Your task to perform on an android device: What's on my calendar today? Image 0: 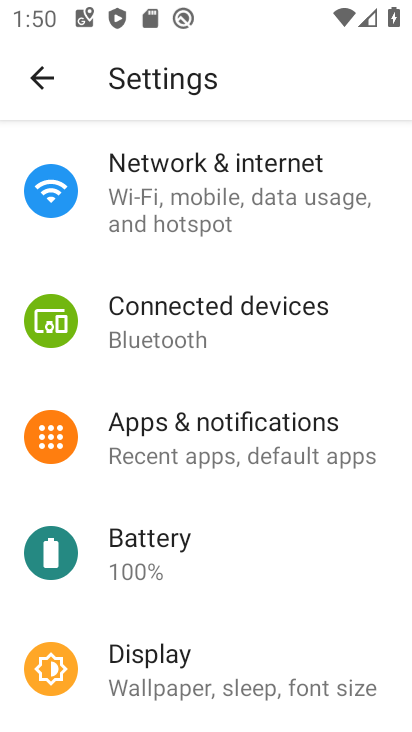
Step 0: press home button
Your task to perform on an android device: What's on my calendar today? Image 1: 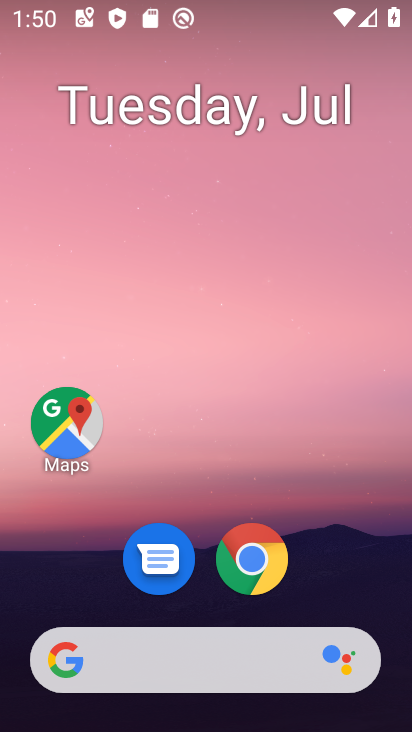
Step 1: drag from (348, 563) to (344, 238)
Your task to perform on an android device: What's on my calendar today? Image 2: 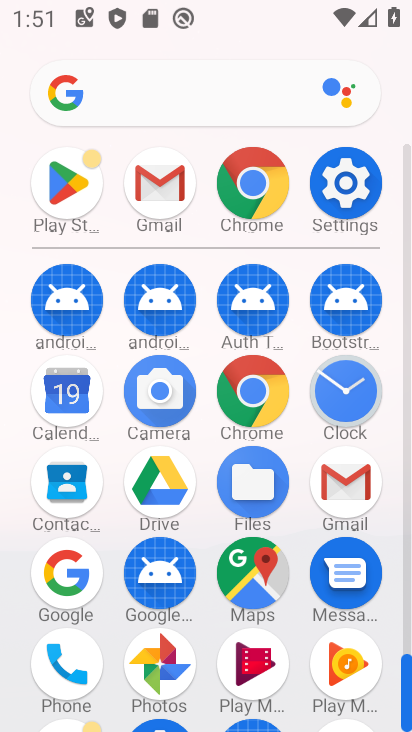
Step 2: click (82, 405)
Your task to perform on an android device: What's on my calendar today? Image 3: 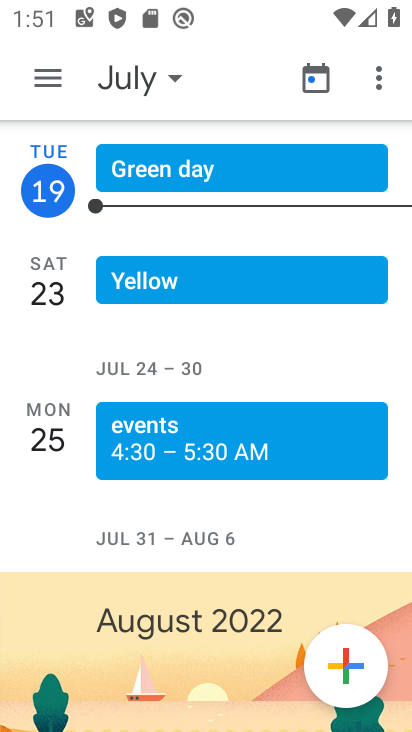
Step 3: task complete